Your task to perform on an android device: Is it going to rain tomorrow? Image 0: 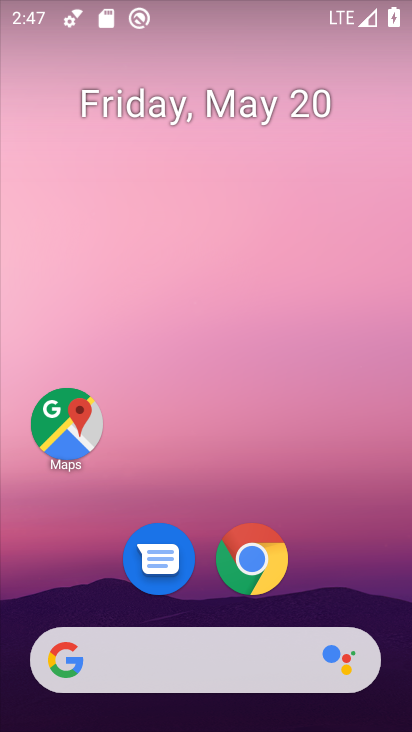
Step 0: drag from (221, 476) to (211, 58)
Your task to perform on an android device: Is it going to rain tomorrow? Image 1: 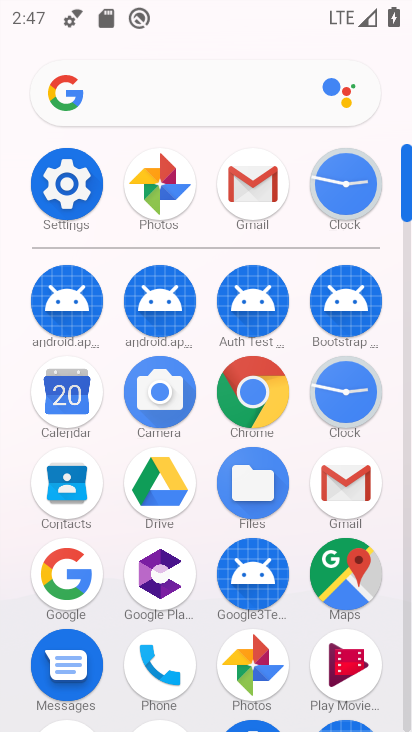
Step 1: click (145, 91)
Your task to perform on an android device: Is it going to rain tomorrow? Image 2: 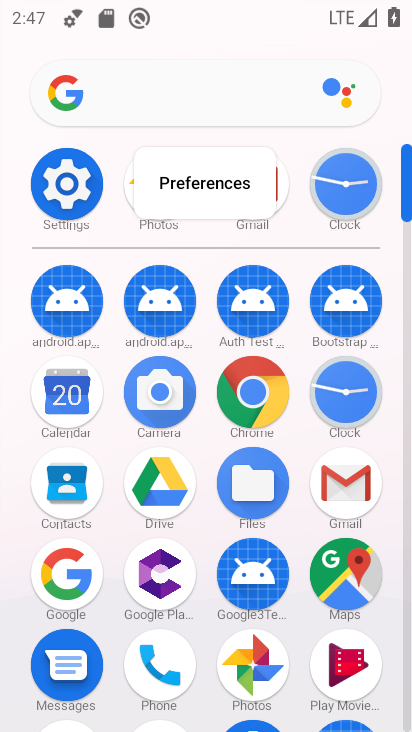
Step 2: click (144, 93)
Your task to perform on an android device: Is it going to rain tomorrow? Image 3: 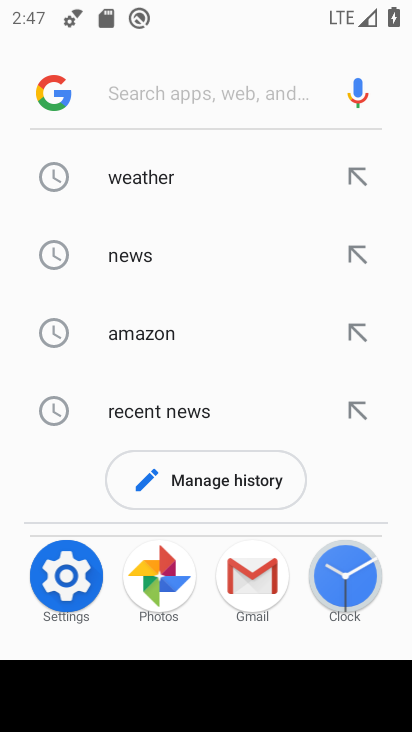
Step 3: click (128, 174)
Your task to perform on an android device: Is it going to rain tomorrow? Image 4: 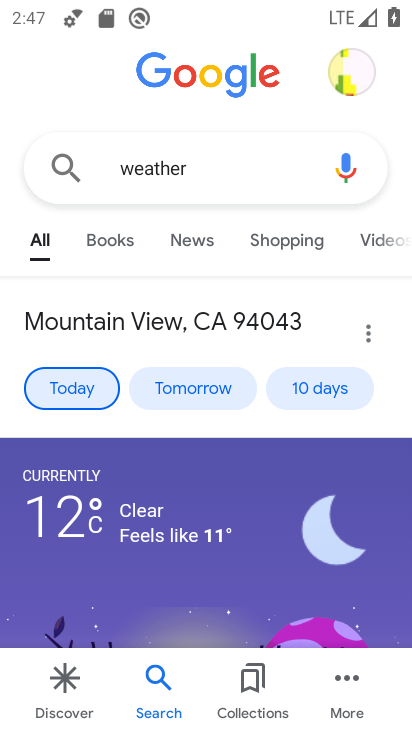
Step 4: click (80, 384)
Your task to perform on an android device: Is it going to rain tomorrow? Image 5: 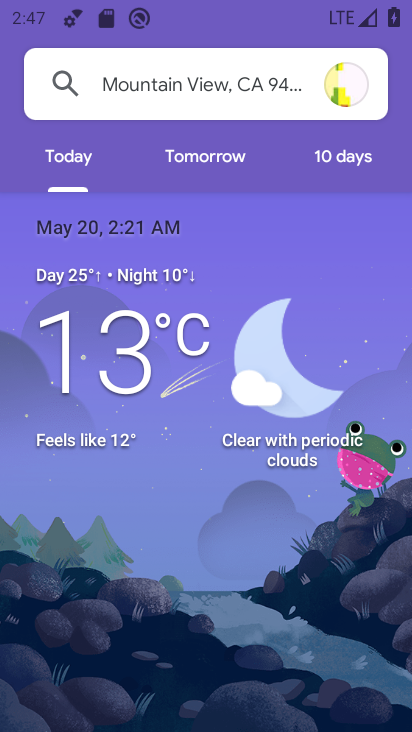
Step 5: click (226, 159)
Your task to perform on an android device: Is it going to rain tomorrow? Image 6: 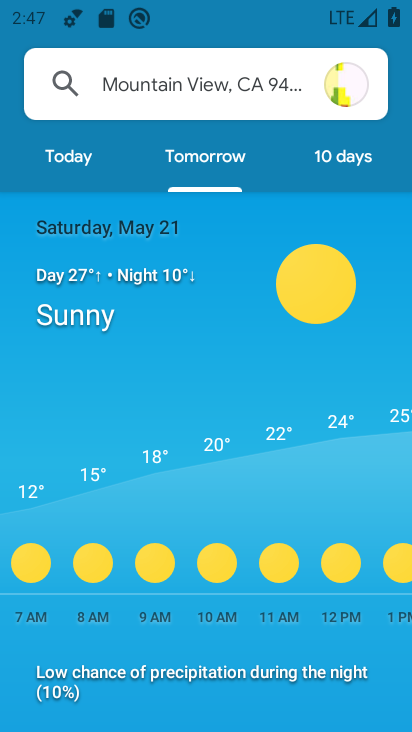
Step 6: task complete